Your task to perform on an android device: Search for sushi restaurants on Maps Image 0: 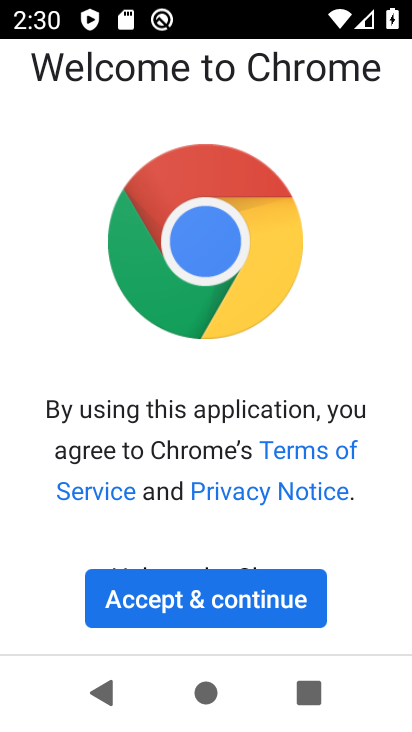
Step 0: press home button
Your task to perform on an android device: Search for sushi restaurants on Maps Image 1: 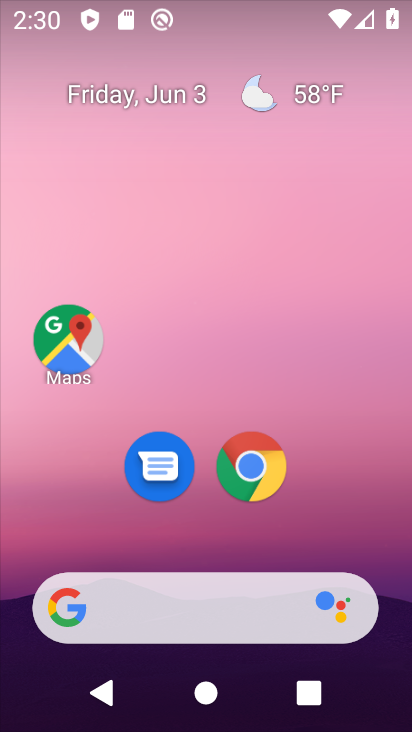
Step 1: click (67, 357)
Your task to perform on an android device: Search for sushi restaurants on Maps Image 2: 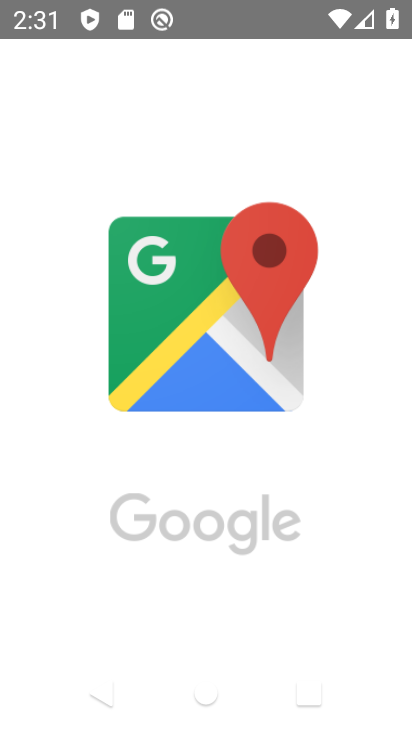
Step 2: click (67, 357)
Your task to perform on an android device: Search for sushi restaurants on Maps Image 3: 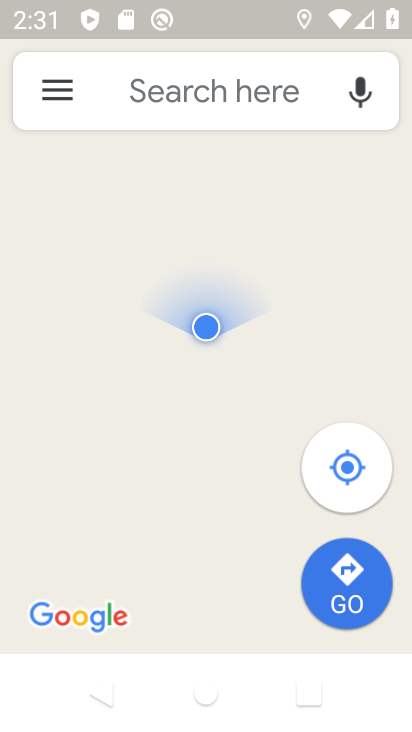
Step 3: click (109, 75)
Your task to perform on an android device: Search for sushi restaurants on Maps Image 4: 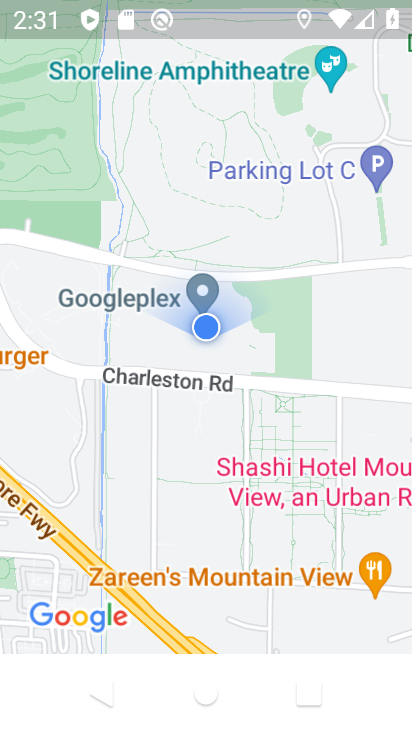
Step 4: type "sushi restaurants"
Your task to perform on an android device: Search for sushi restaurants on Maps Image 5: 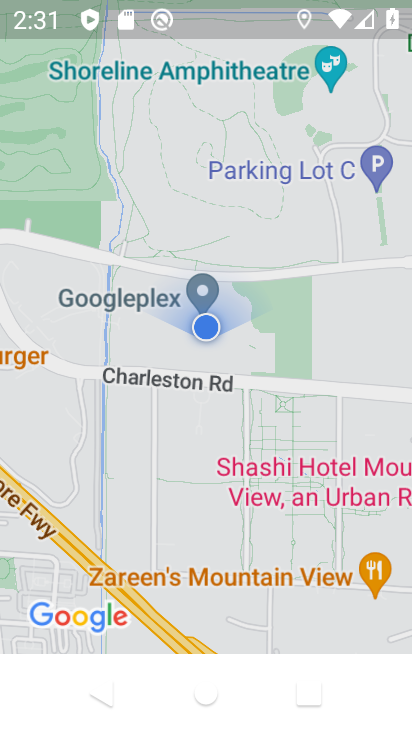
Step 5: press home button
Your task to perform on an android device: Search for sushi restaurants on Maps Image 6: 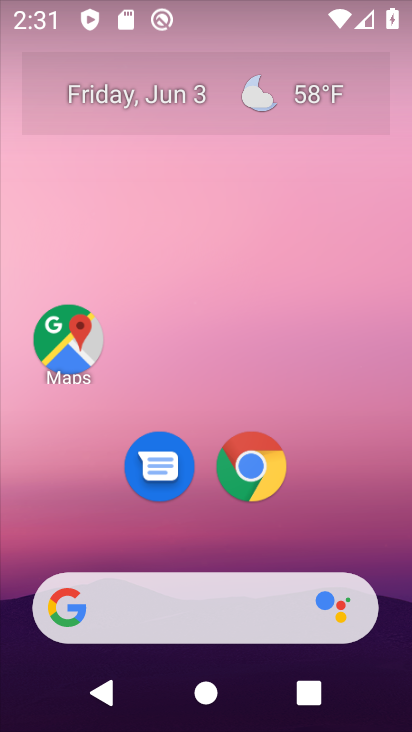
Step 6: click (62, 324)
Your task to perform on an android device: Search for sushi restaurants on Maps Image 7: 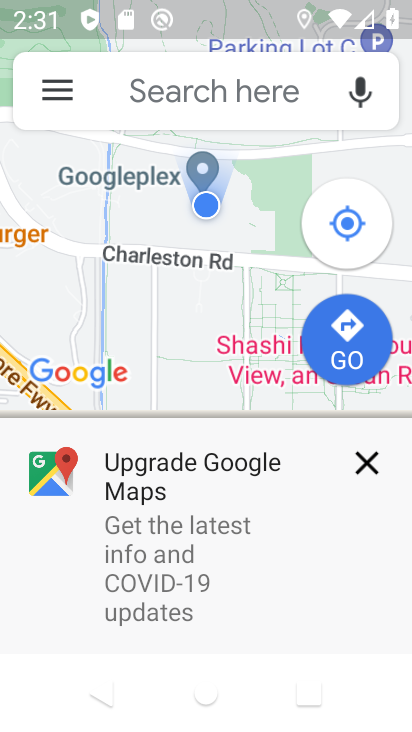
Step 7: click (190, 87)
Your task to perform on an android device: Search for sushi restaurants on Maps Image 8: 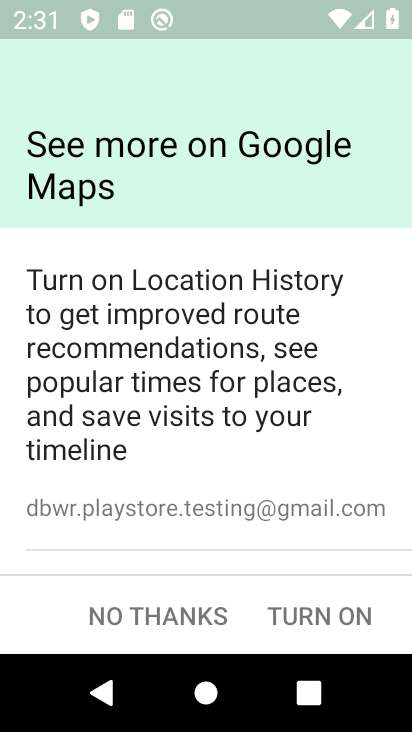
Step 8: press home button
Your task to perform on an android device: Search for sushi restaurants on Maps Image 9: 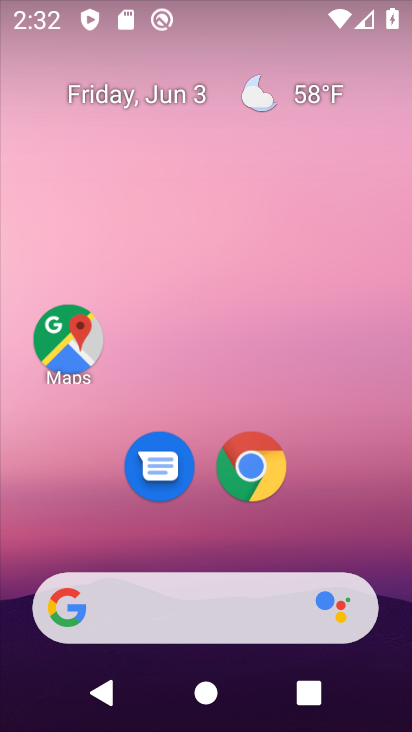
Step 9: click (82, 346)
Your task to perform on an android device: Search for sushi restaurants on Maps Image 10: 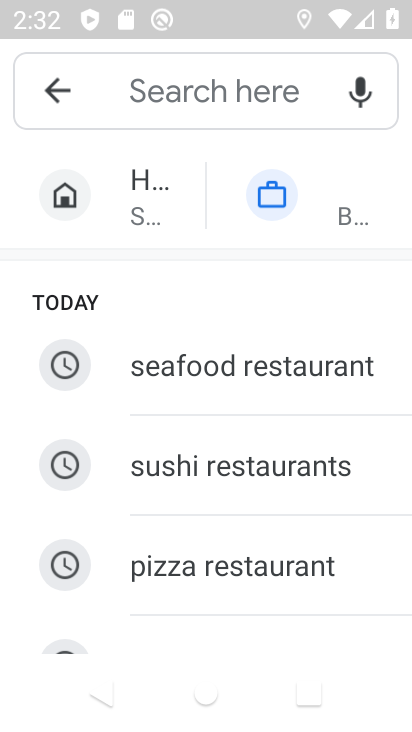
Step 10: click (256, 469)
Your task to perform on an android device: Search for sushi restaurants on Maps Image 11: 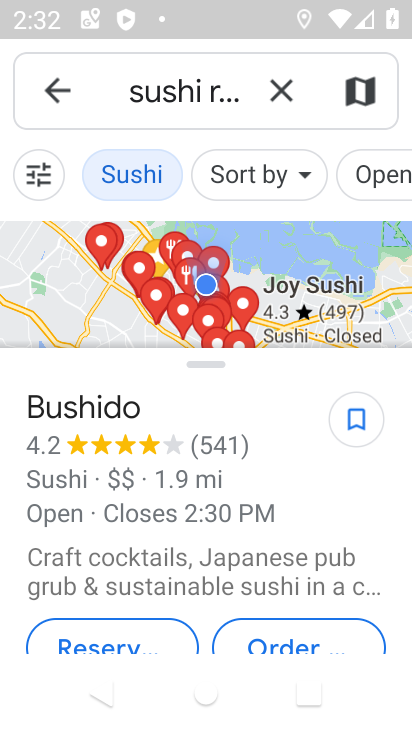
Step 11: task complete